Your task to perform on an android device: turn off priority inbox in the gmail app Image 0: 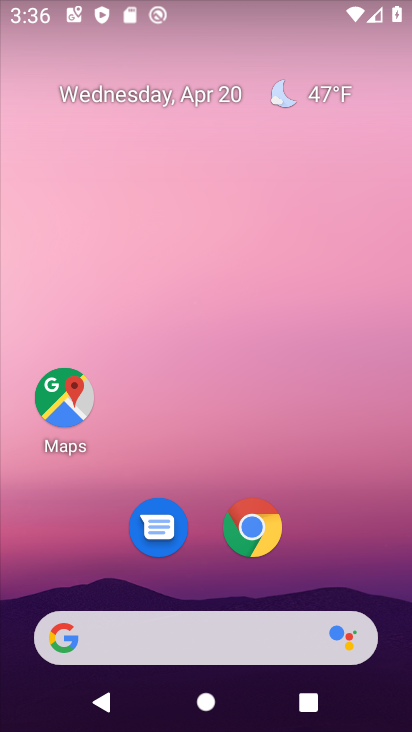
Step 0: drag from (345, 512) to (314, 95)
Your task to perform on an android device: turn off priority inbox in the gmail app Image 1: 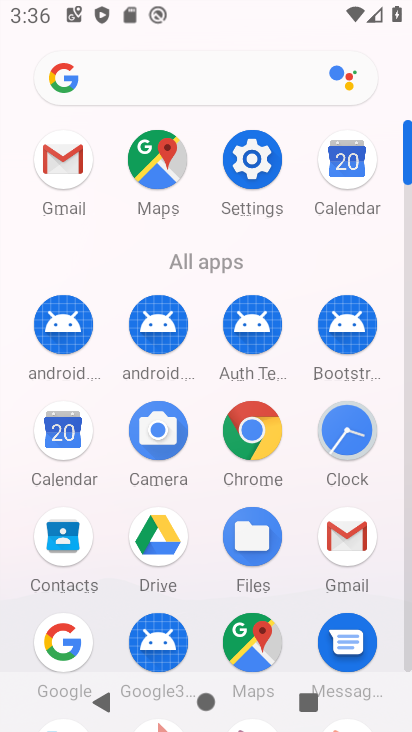
Step 1: click (341, 556)
Your task to perform on an android device: turn off priority inbox in the gmail app Image 2: 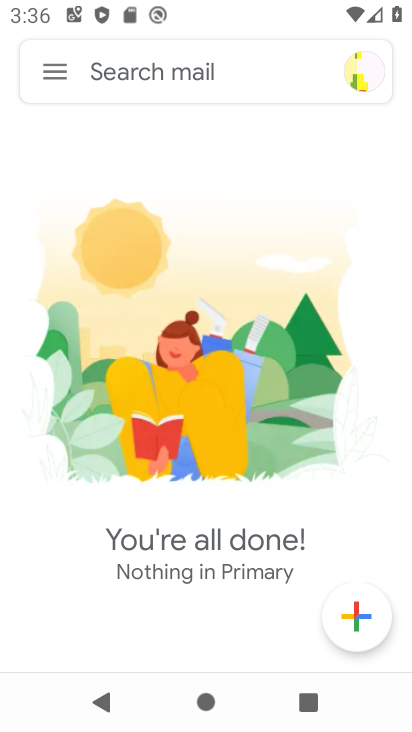
Step 2: click (56, 80)
Your task to perform on an android device: turn off priority inbox in the gmail app Image 3: 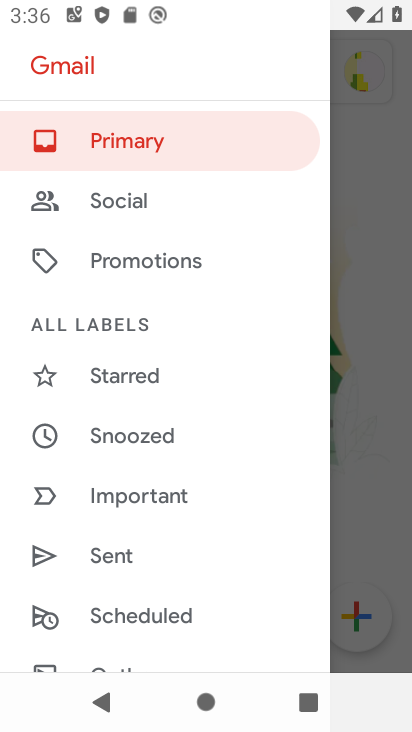
Step 3: drag from (166, 556) to (161, 221)
Your task to perform on an android device: turn off priority inbox in the gmail app Image 4: 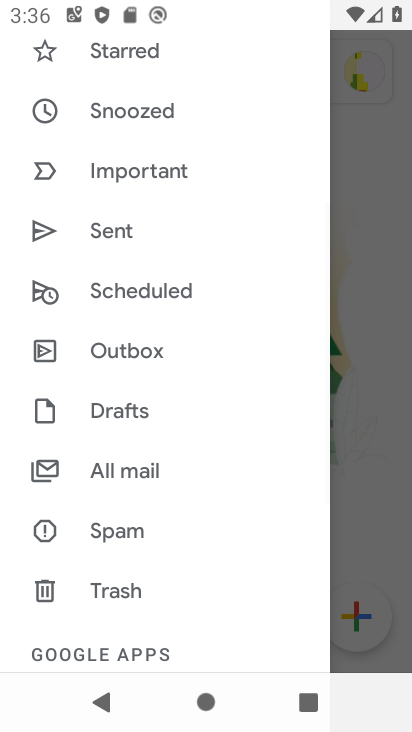
Step 4: drag from (180, 618) to (189, 356)
Your task to perform on an android device: turn off priority inbox in the gmail app Image 5: 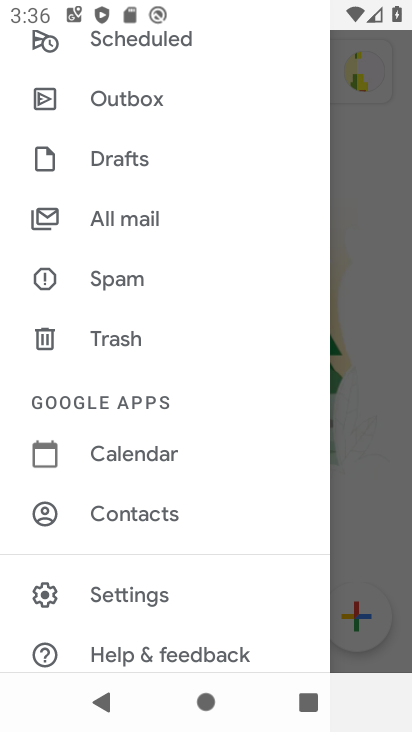
Step 5: click (147, 596)
Your task to perform on an android device: turn off priority inbox in the gmail app Image 6: 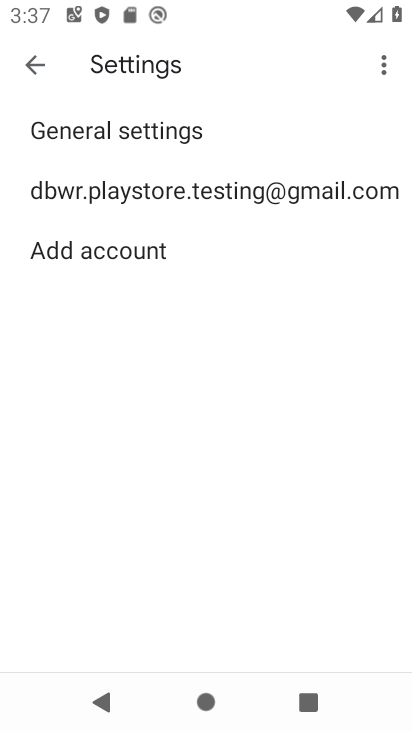
Step 6: click (284, 185)
Your task to perform on an android device: turn off priority inbox in the gmail app Image 7: 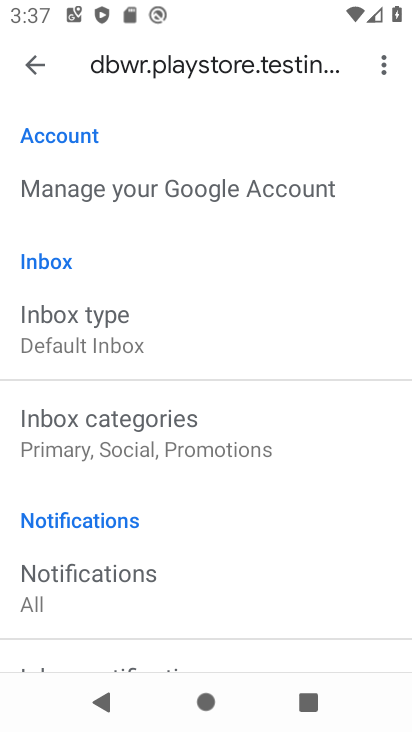
Step 7: click (97, 331)
Your task to perform on an android device: turn off priority inbox in the gmail app Image 8: 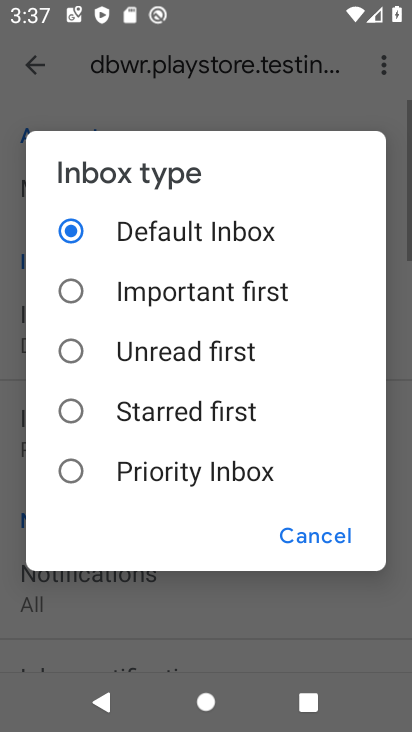
Step 8: click (166, 472)
Your task to perform on an android device: turn off priority inbox in the gmail app Image 9: 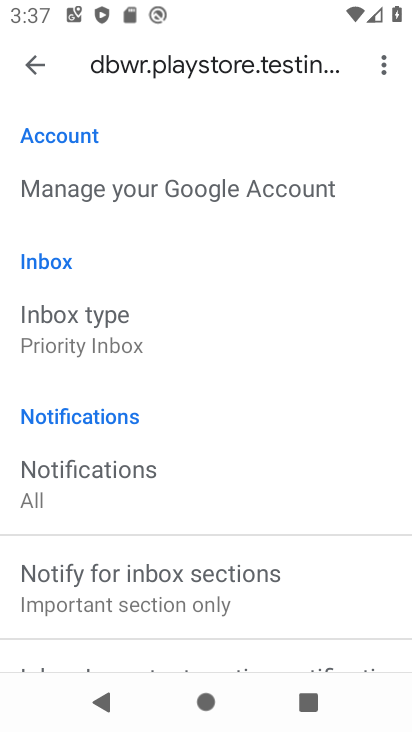
Step 9: task complete